Your task to perform on an android device: change notifications settings Image 0: 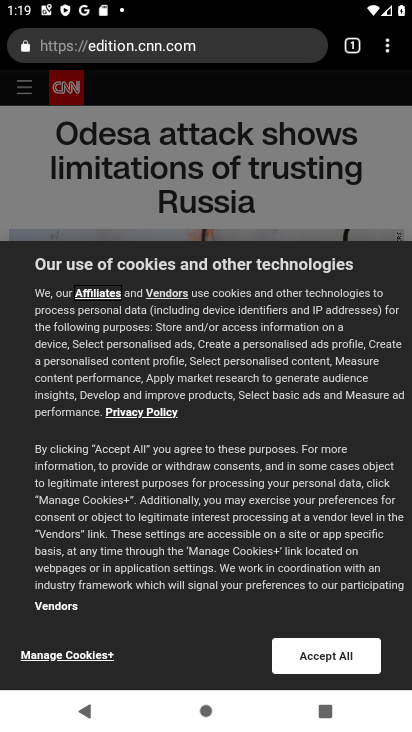
Step 0: press home button
Your task to perform on an android device: change notifications settings Image 1: 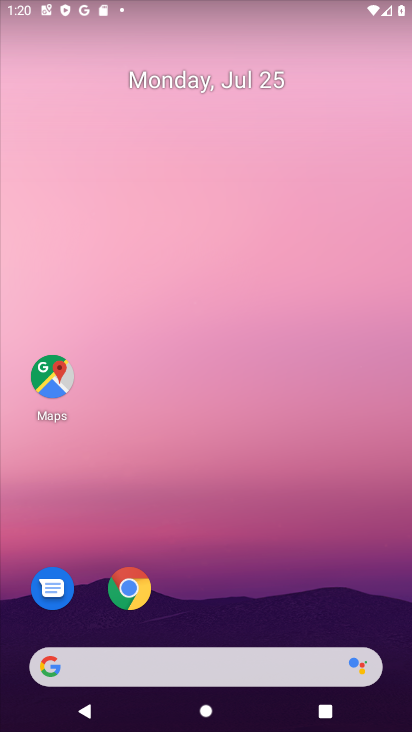
Step 1: drag from (226, 570) to (180, 30)
Your task to perform on an android device: change notifications settings Image 2: 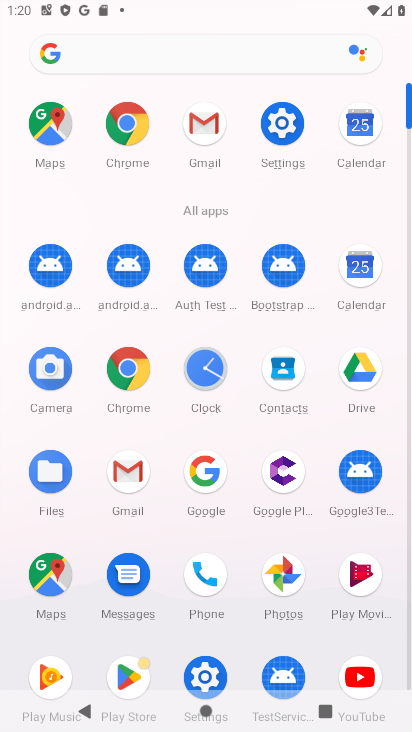
Step 2: click (287, 128)
Your task to perform on an android device: change notifications settings Image 3: 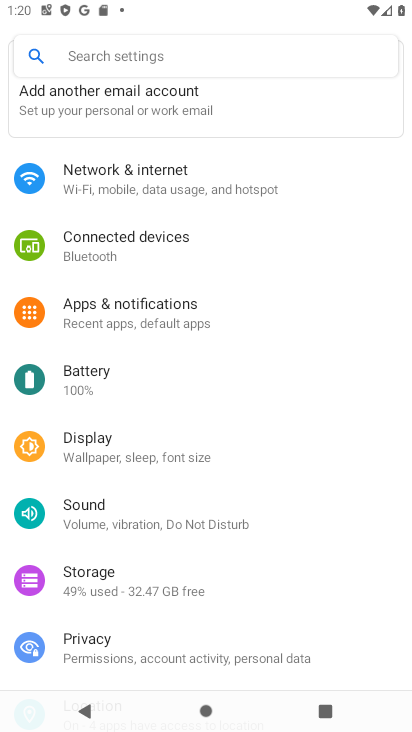
Step 3: click (100, 323)
Your task to perform on an android device: change notifications settings Image 4: 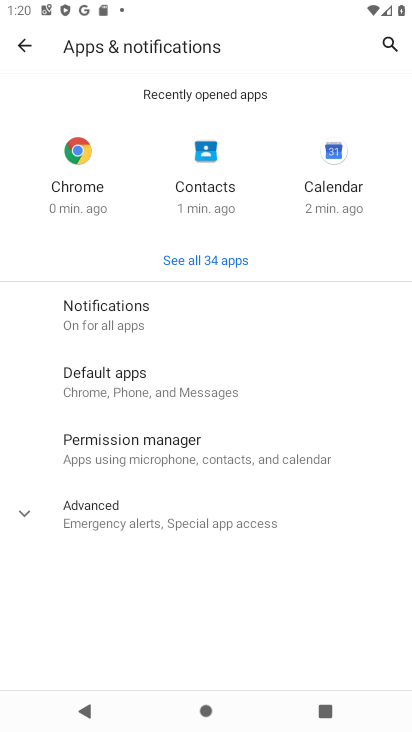
Step 4: click (112, 323)
Your task to perform on an android device: change notifications settings Image 5: 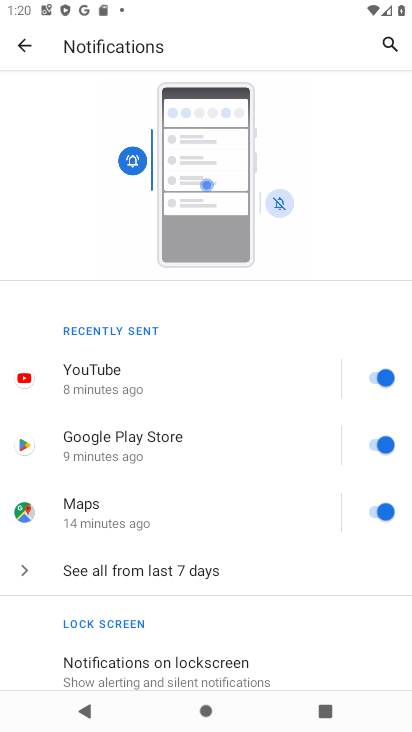
Step 5: click (223, 364)
Your task to perform on an android device: change notifications settings Image 6: 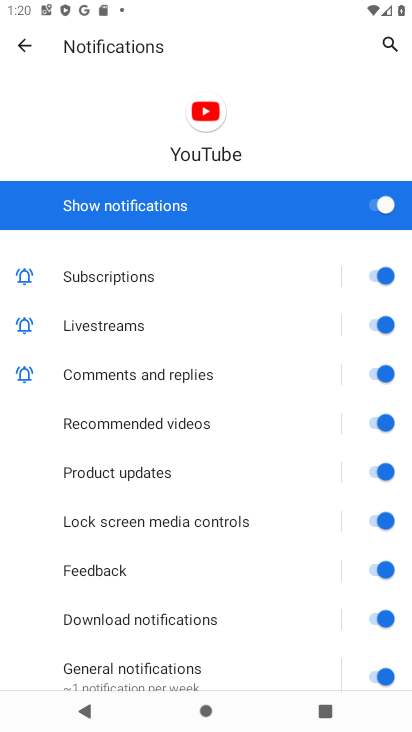
Step 6: click (370, 201)
Your task to perform on an android device: change notifications settings Image 7: 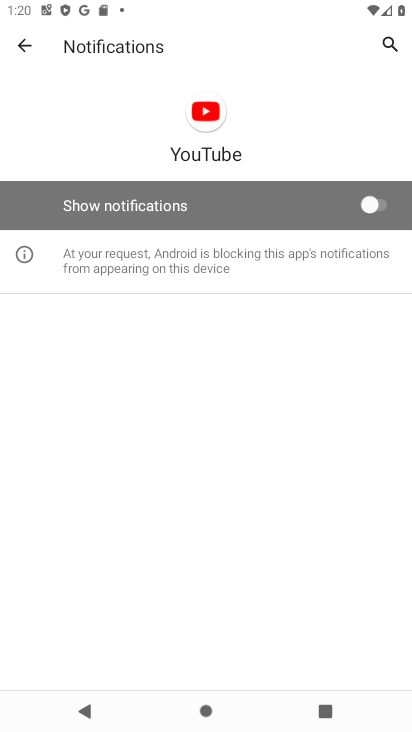
Step 7: task complete